Your task to perform on an android device: Is it going to rain tomorrow? Image 0: 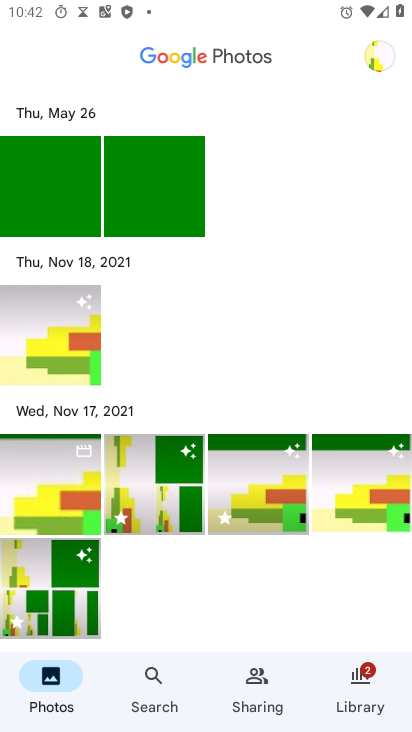
Step 0: press home button
Your task to perform on an android device: Is it going to rain tomorrow? Image 1: 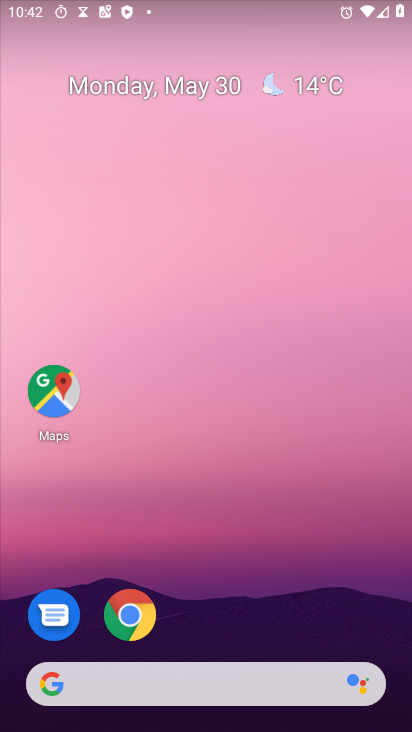
Step 1: click (329, 91)
Your task to perform on an android device: Is it going to rain tomorrow? Image 2: 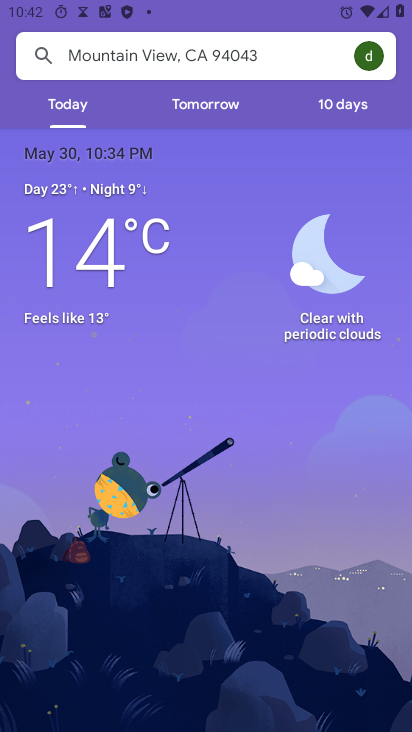
Step 2: click (208, 105)
Your task to perform on an android device: Is it going to rain tomorrow? Image 3: 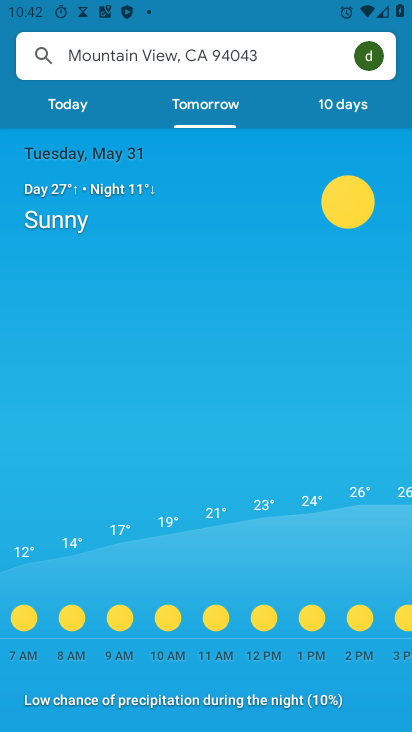
Step 3: task complete